Your task to perform on an android device: What's the news in South Korea? Image 0: 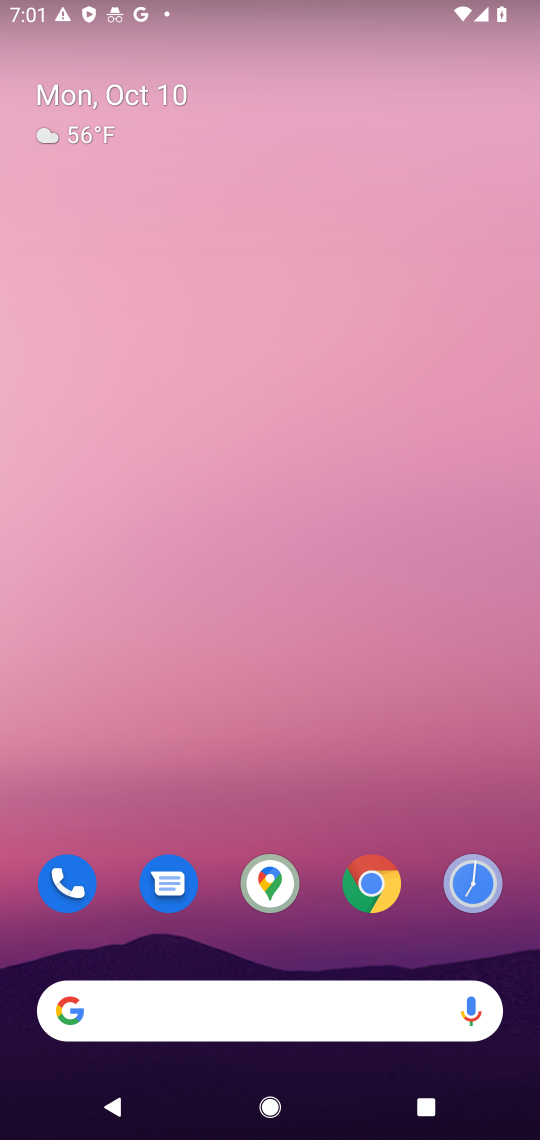
Step 0: drag from (256, 1001) to (220, 375)
Your task to perform on an android device: What's the news in South Korea? Image 1: 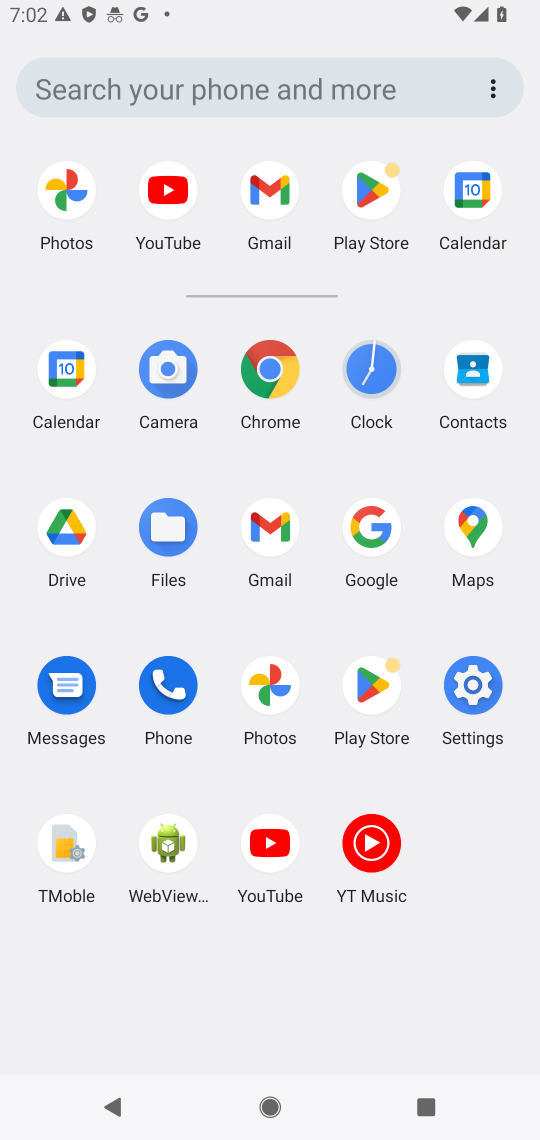
Step 1: click (371, 603)
Your task to perform on an android device: What's the news in South Korea? Image 2: 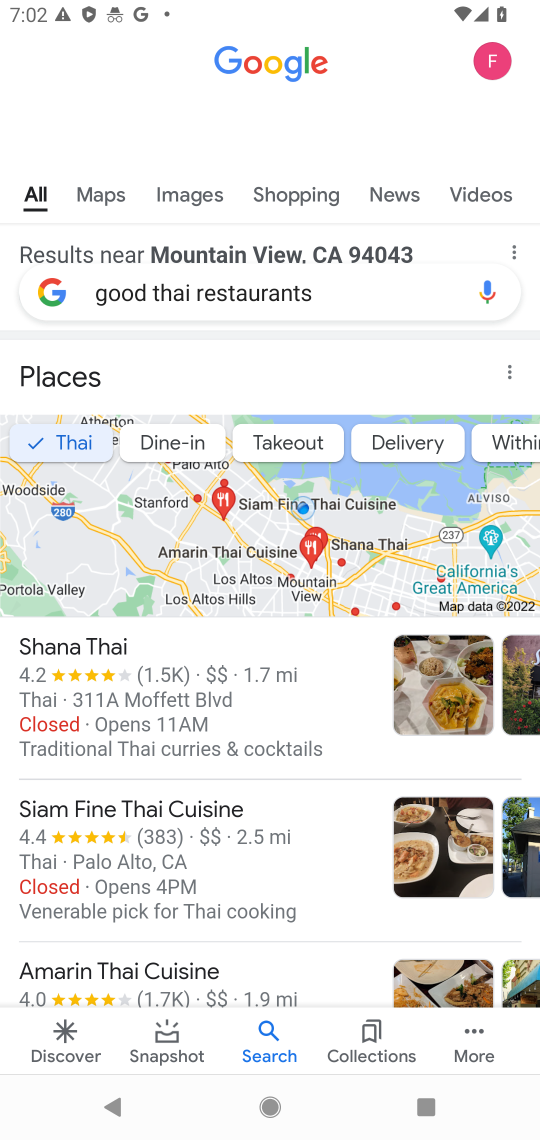
Step 2: click (424, 289)
Your task to perform on an android device: What's the news in South Korea? Image 3: 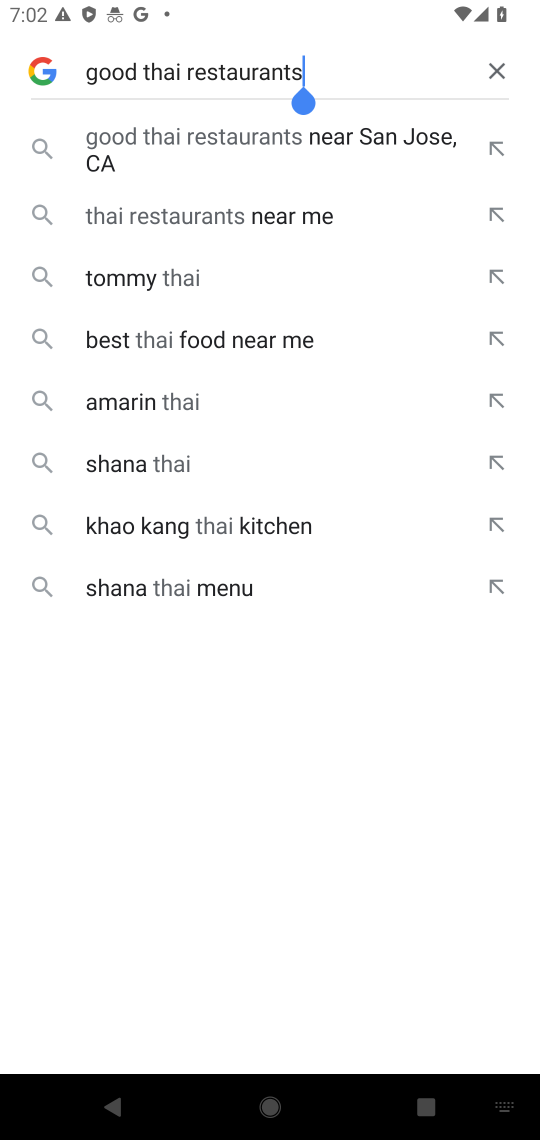
Step 3: click (493, 67)
Your task to perform on an android device: What's the news in South Korea? Image 4: 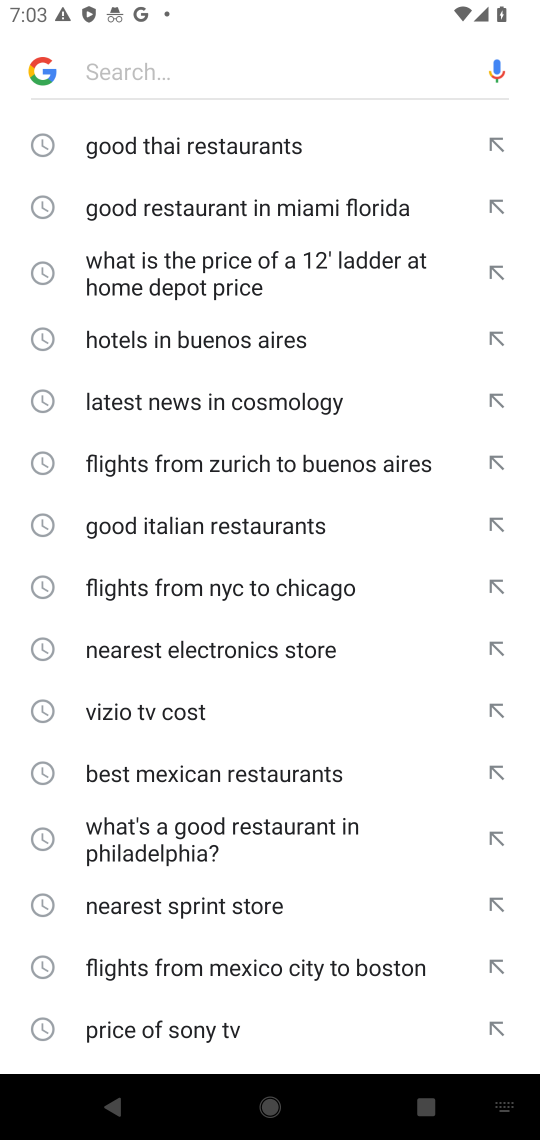
Step 4: type "What's the news in South Korea?"
Your task to perform on an android device: What's the news in South Korea? Image 5: 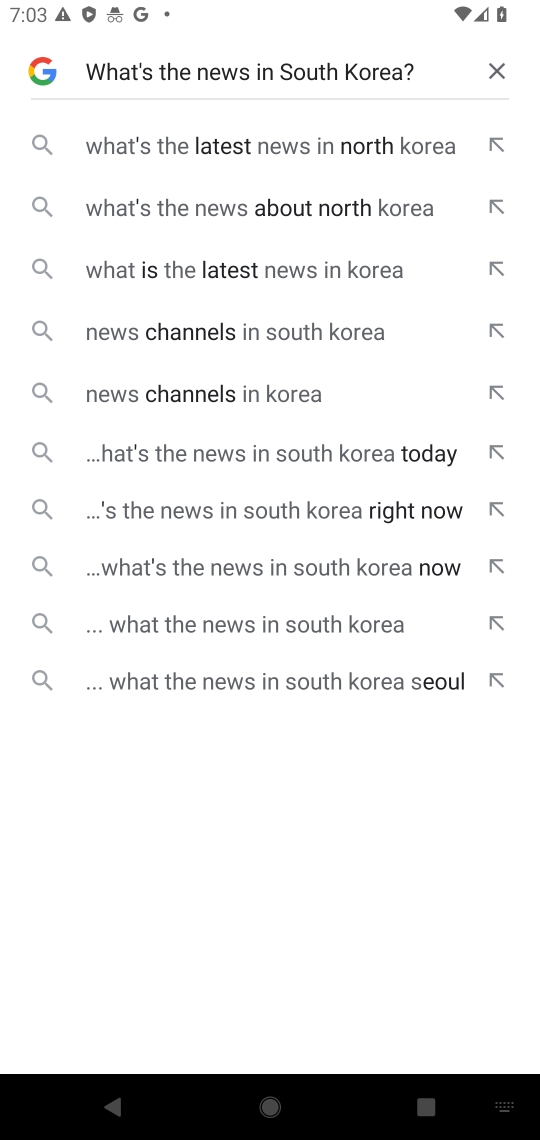
Step 5: click (334, 602)
Your task to perform on an android device: What's the news in South Korea? Image 6: 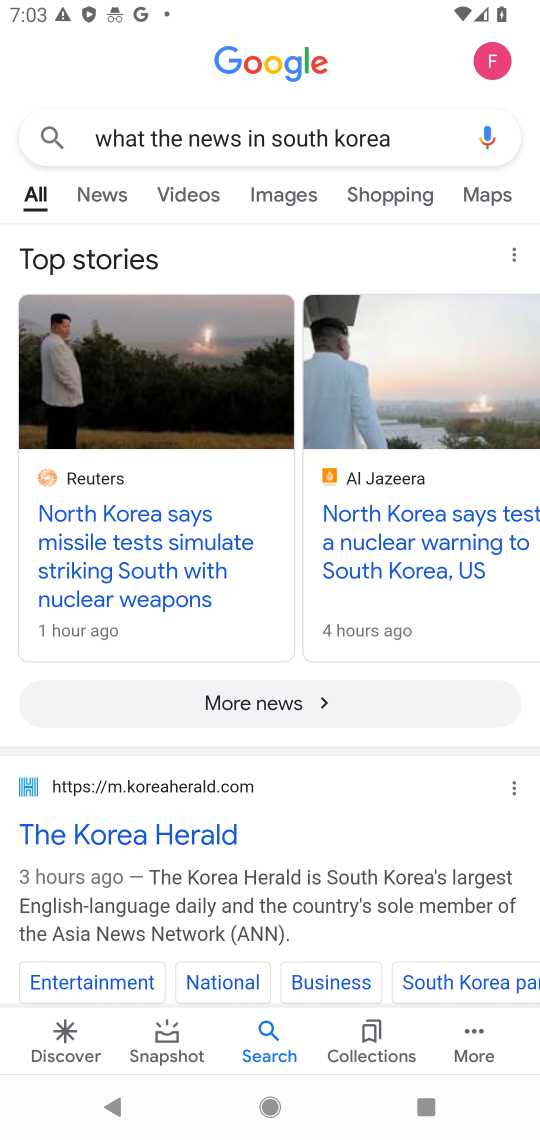
Step 6: click (94, 193)
Your task to perform on an android device: What's the news in South Korea? Image 7: 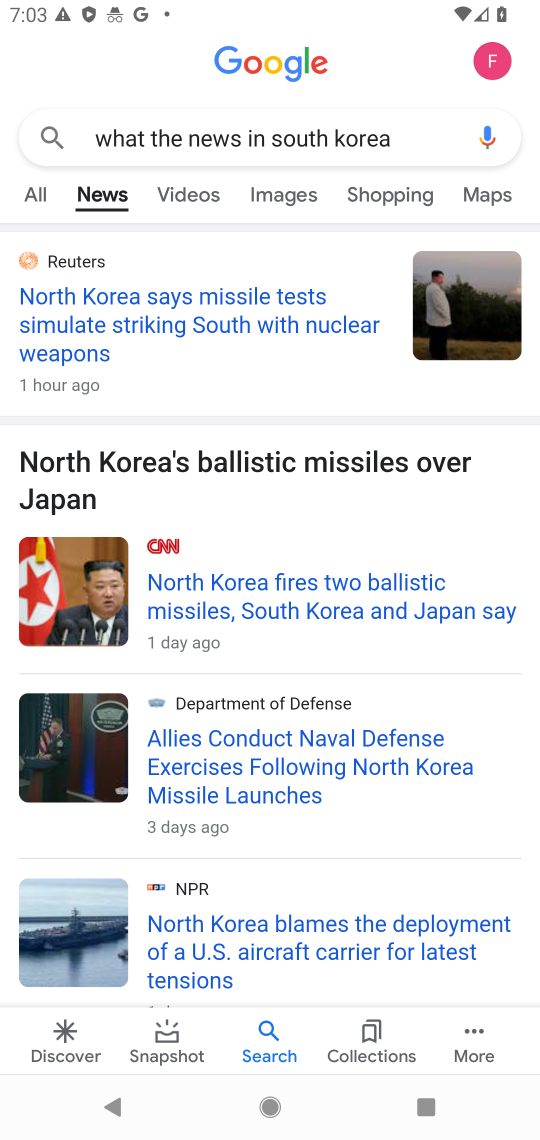
Step 7: task complete